Your task to perform on an android device: Open Amazon Image 0: 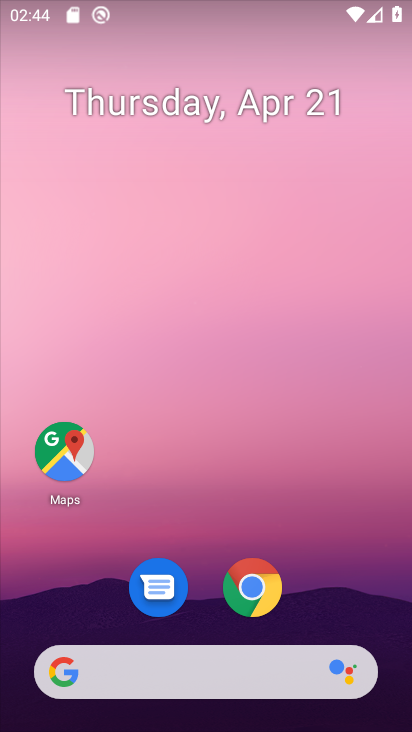
Step 0: drag from (376, 508) to (377, 291)
Your task to perform on an android device: Open Amazon Image 1: 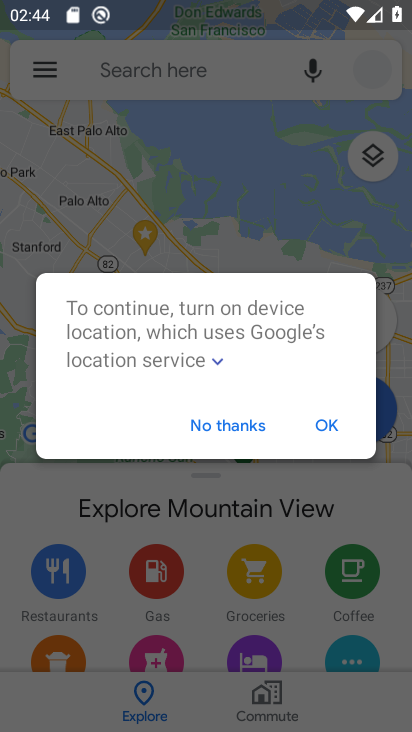
Step 1: press home button
Your task to perform on an android device: Open Amazon Image 2: 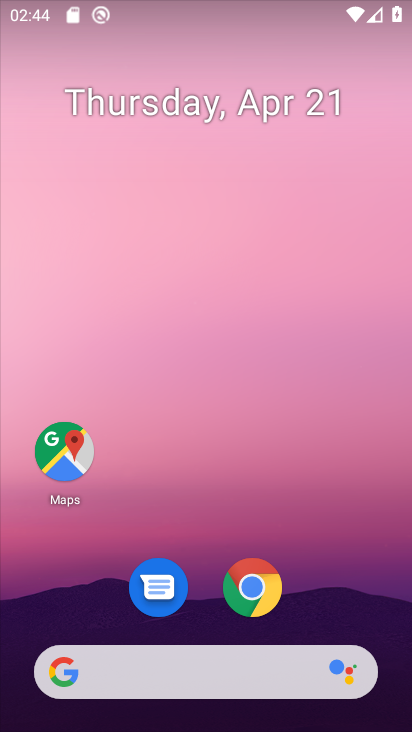
Step 2: drag from (363, 582) to (365, 176)
Your task to perform on an android device: Open Amazon Image 3: 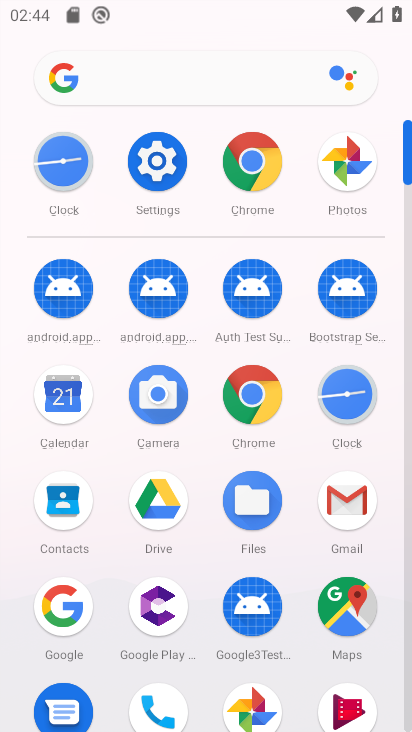
Step 3: click (252, 396)
Your task to perform on an android device: Open Amazon Image 4: 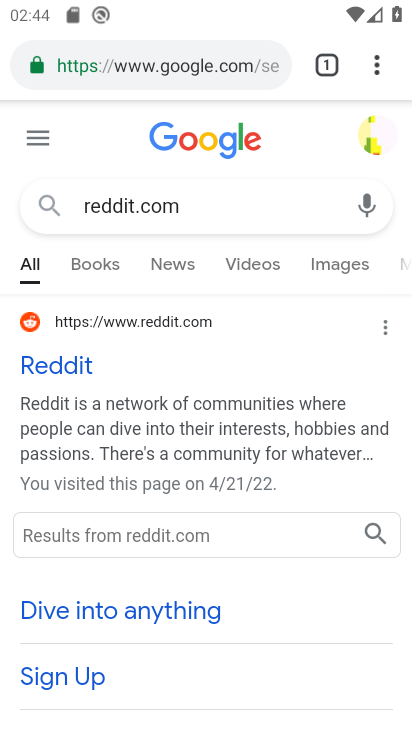
Step 4: click (241, 197)
Your task to perform on an android device: Open Amazon Image 5: 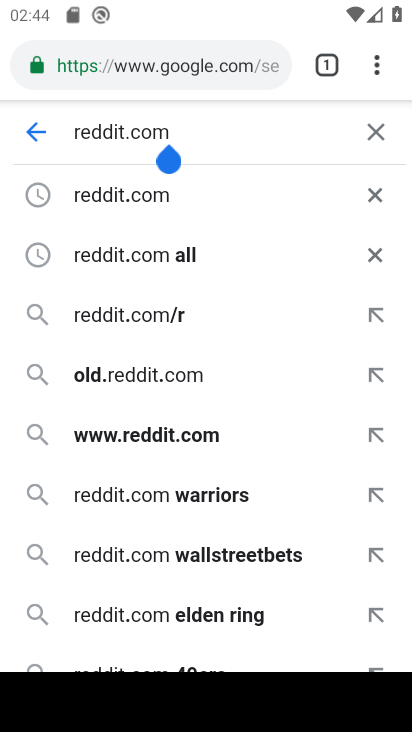
Step 5: click (373, 132)
Your task to perform on an android device: Open Amazon Image 6: 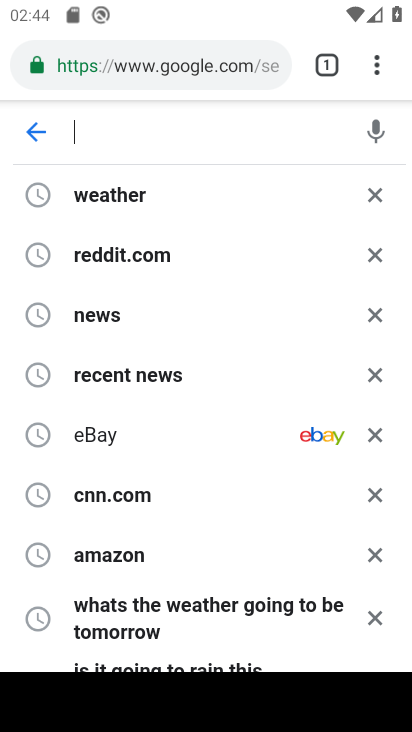
Step 6: type "amzon"
Your task to perform on an android device: Open Amazon Image 7: 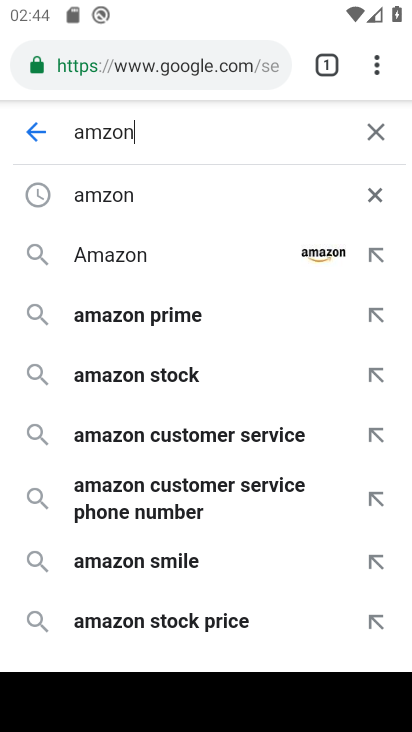
Step 7: click (139, 259)
Your task to perform on an android device: Open Amazon Image 8: 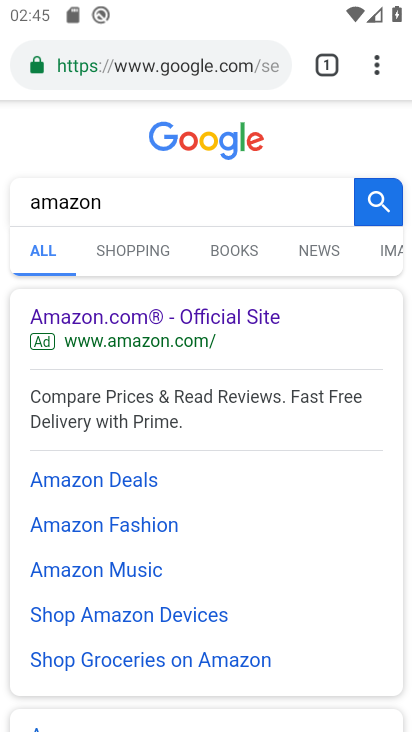
Step 8: click (211, 317)
Your task to perform on an android device: Open Amazon Image 9: 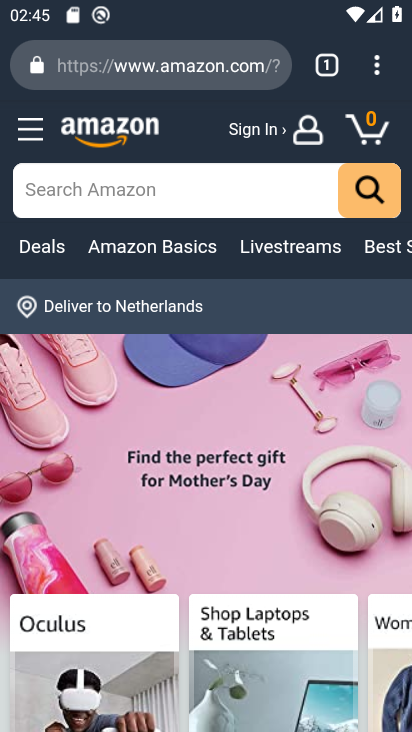
Step 9: task complete